Your task to perform on an android device: toggle wifi Image 0: 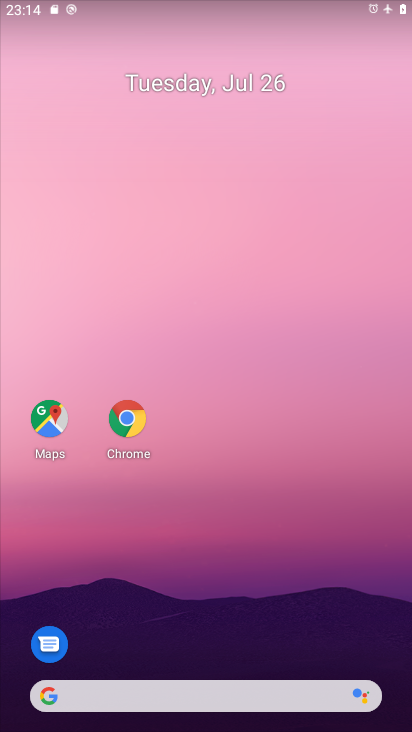
Step 0: drag from (144, 647) to (170, 139)
Your task to perform on an android device: toggle wifi Image 1: 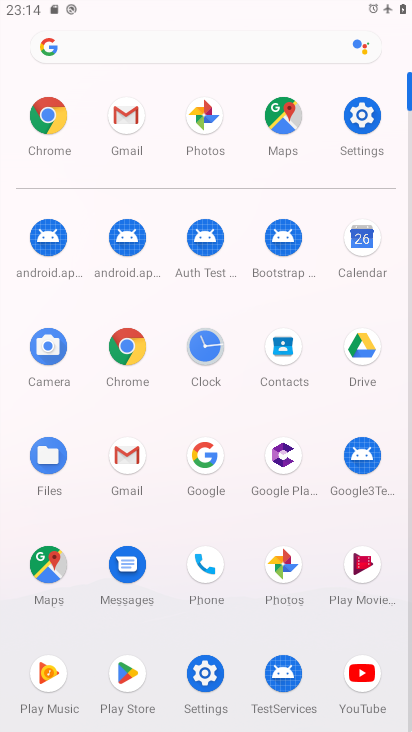
Step 1: click (362, 107)
Your task to perform on an android device: toggle wifi Image 2: 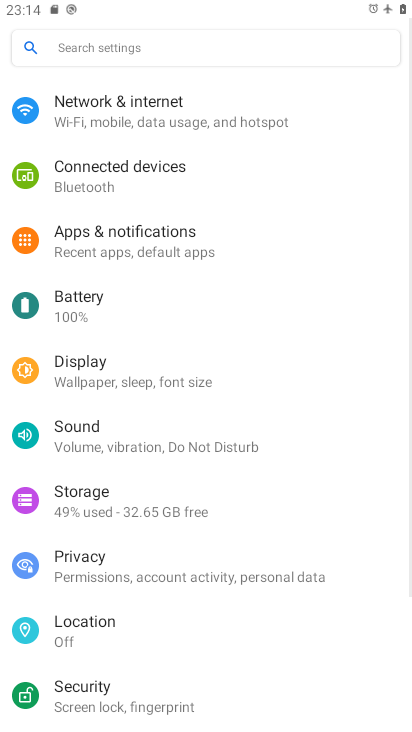
Step 2: click (231, 107)
Your task to perform on an android device: toggle wifi Image 3: 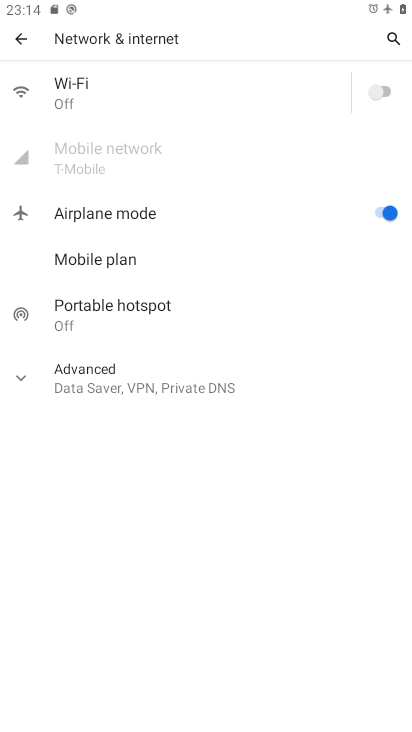
Step 3: click (384, 93)
Your task to perform on an android device: toggle wifi Image 4: 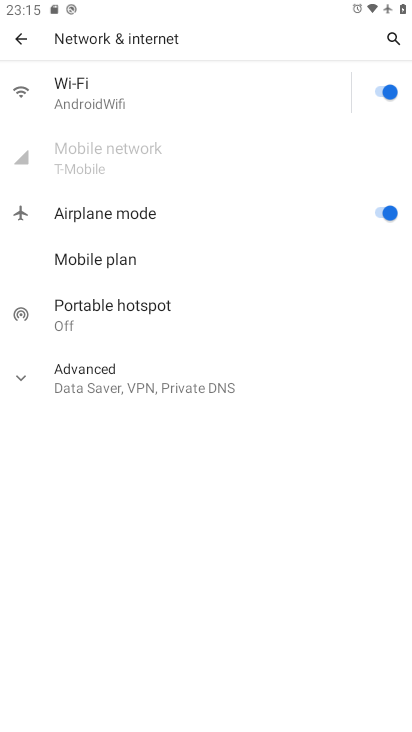
Step 4: task complete